Your task to perform on an android device: clear all cookies in the chrome app Image 0: 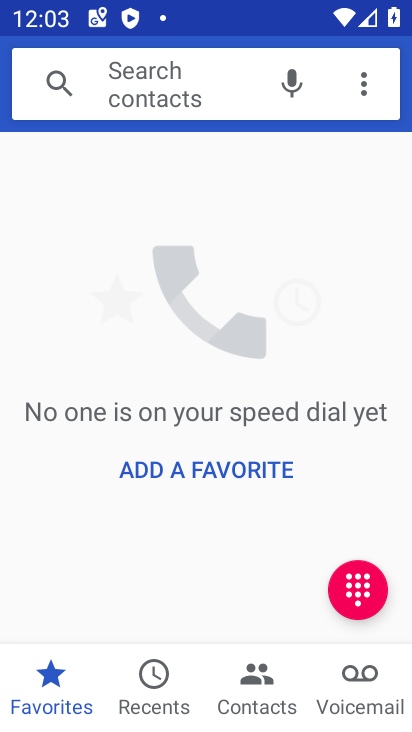
Step 0: press home button
Your task to perform on an android device: clear all cookies in the chrome app Image 1: 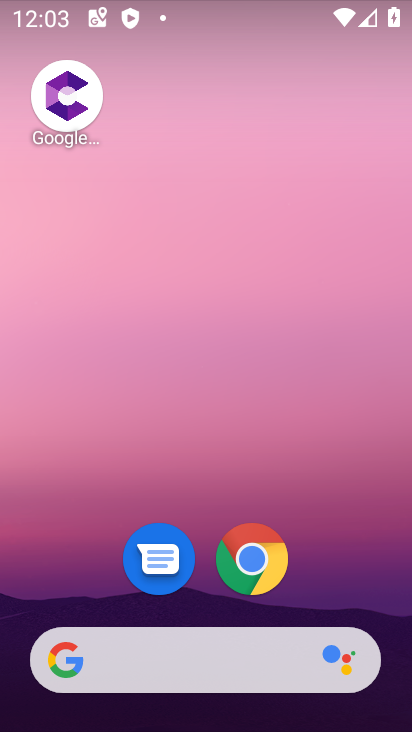
Step 1: click (280, 551)
Your task to perform on an android device: clear all cookies in the chrome app Image 2: 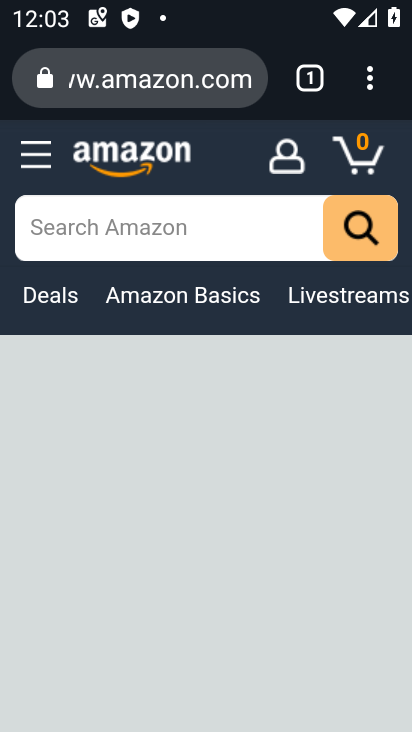
Step 2: click (365, 106)
Your task to perform on an android device: clear all cookies in the chrome app Image 3: 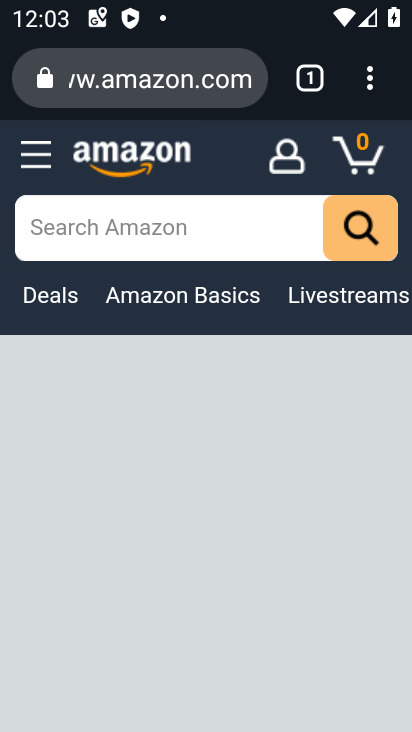
Step 3: click (365, 106)
Your task to perform on an android device: clear all cookies in the chrome app Image 4: 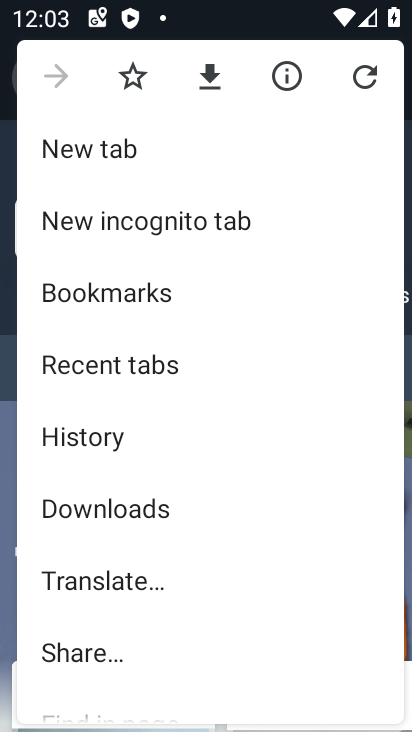
Step 4: drag from (251, 565) to (252, 332)
Your task to perform on an android device: clear all cookies in the chrome app Image 5: 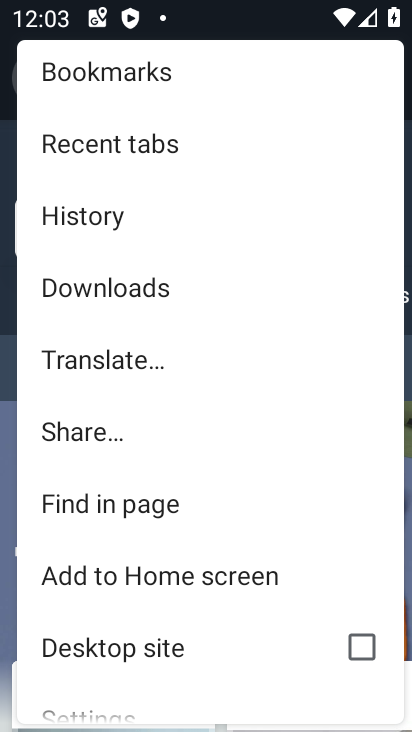
Step 5: drag from (262, 571) to (262, 290)
Your task to perform on an android device: clear all cookies in the chrome app Image 6: 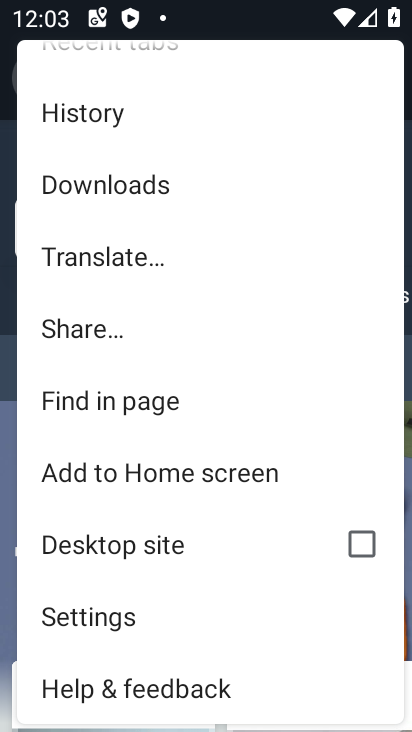
Step 6: click (212, 599)
Your task to perform on an android device: clear all cookies in the chrome app Image 7: 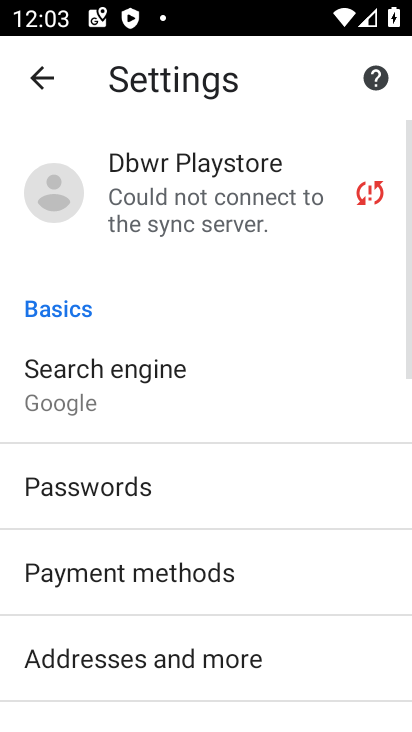
Step 7: drag from (212, 599) to (170, 311)
Your task to perform on an android device: clear all cookies in the chrome app Image 8: 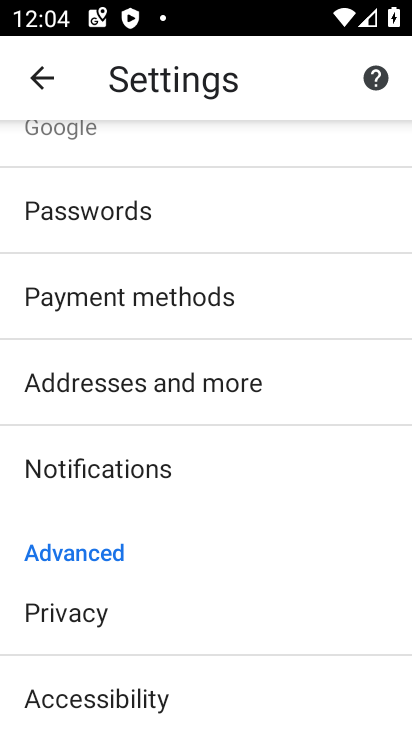
Step 8: drag from (192, 601) to (155, 334)
Your task to perform on an android device: clear all cookies in the chrome app Image 9: 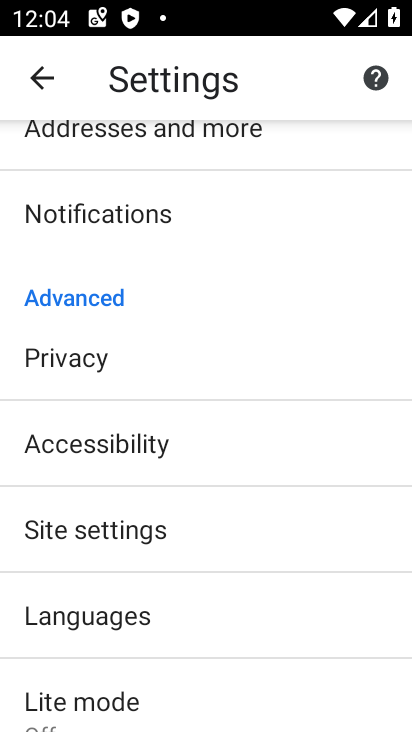
Step 9: drag from (206, 536) to (138, 312)
Your task to perform on an android device: clear all cookies in the chrome app Image 10: 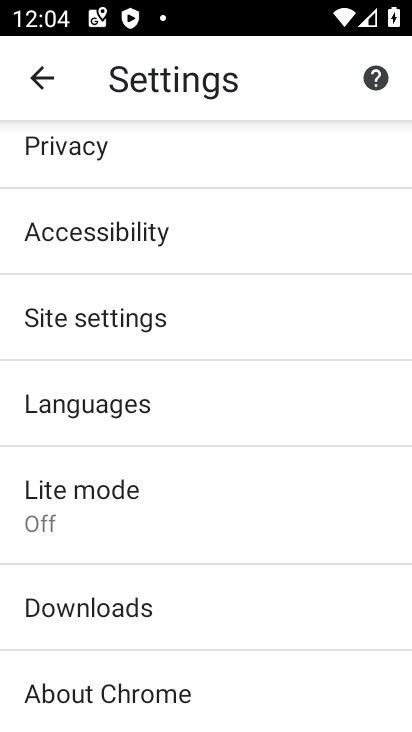
Step 10: click (138, 312)
Your task to perform on an android device: clear all cookies in the chrome app Image 11: 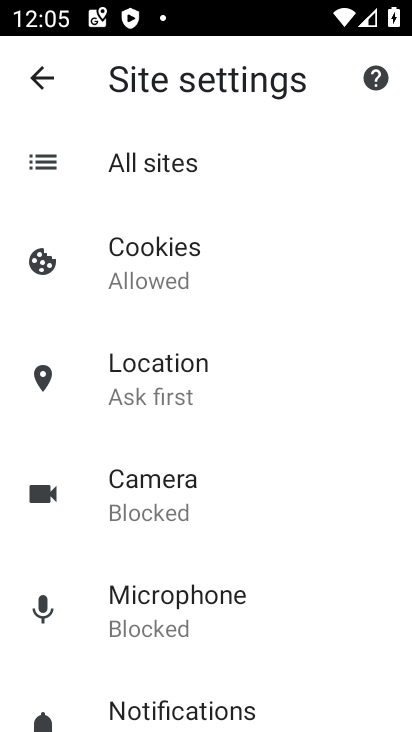
Step 11: task complete